Your task to perform on an android device: star an email in the gmail app Image 0: 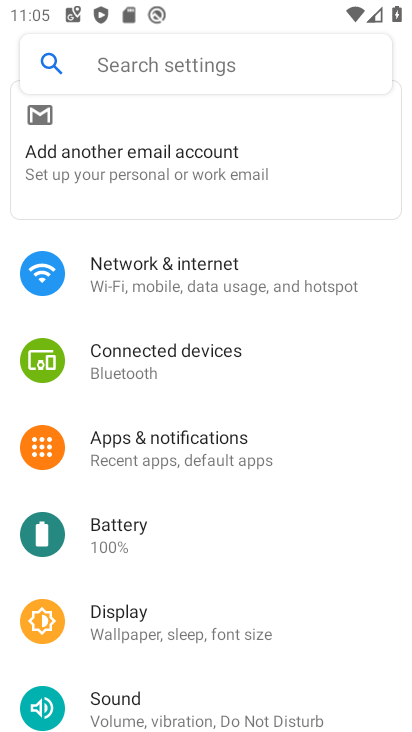
Step 0: press home button
Your task to perform on an android device: star an email in the gmail app Image 1: 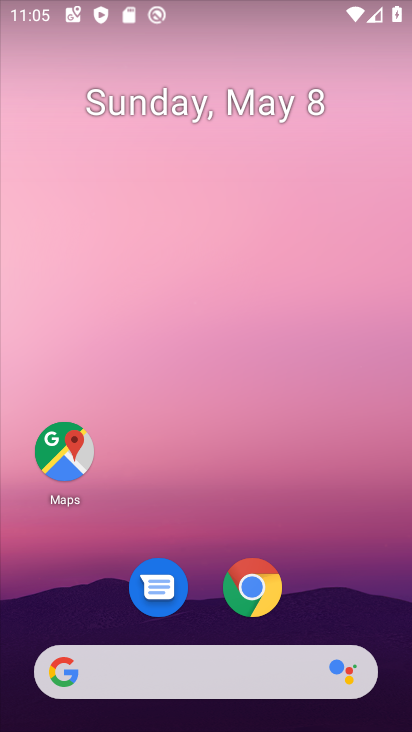
Step 1: drag from (310, 550) to (401, 270)
Your task to perform on an android device: star an email in the gmail app Image 2: 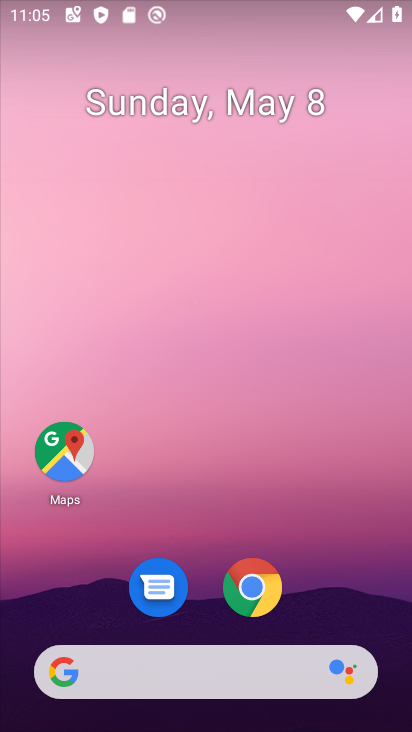
Step 2: click (194, 119)
Your task to perform on an android device: star an email in the gmail app Image 3: 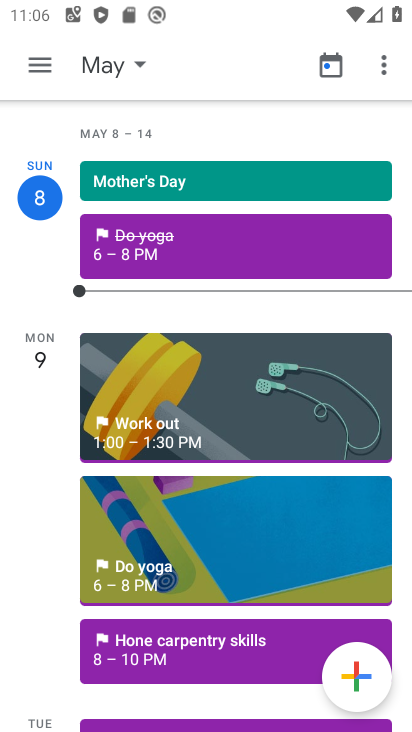
Step 3: press home button
Your task to perform on an android device: star an email in the gmail app Image 4: 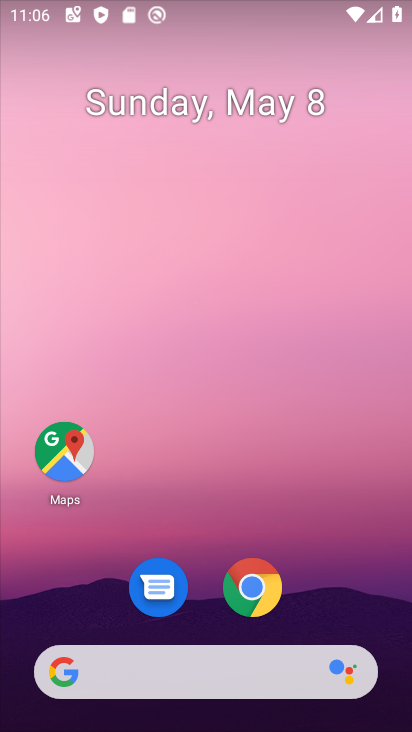
Step 4: drag from (333, 564) to (58, 25)
Your task to perform on an android device: star an email in the gmail app Image 5: 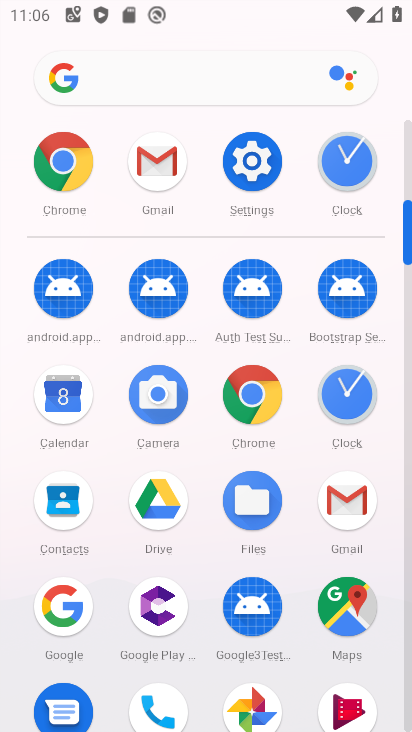
Step 5: click (347, 504)
Your task to perform on an android device: star an email in the gmail app Image 6: 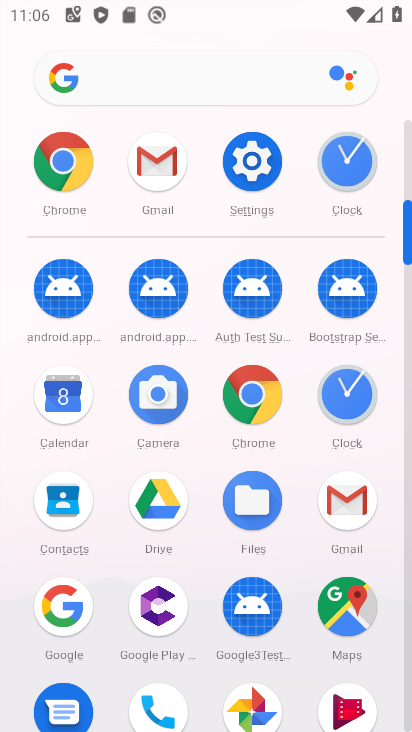
Step 6: click (347, 504)
Your task to perform on an android device: star an email in the gmail app Image 7: 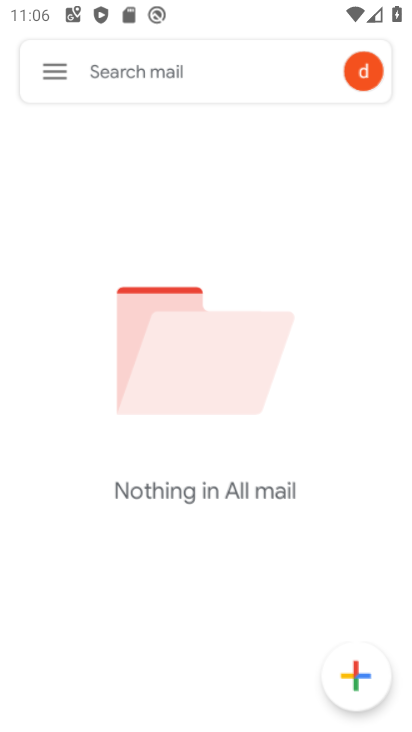
Step 7: click (347, 504)
Your task to perform on an android device: star an email in the gmail app Image 8: 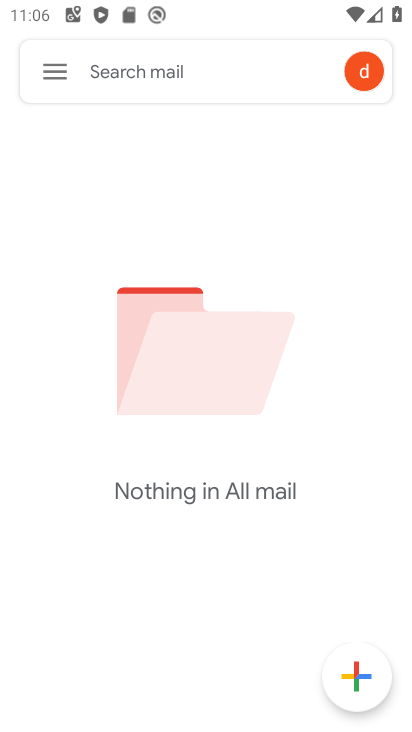
Step 8: click (346, 503)
Your task to perform on an android device: star an email in the gmail app Image 9: 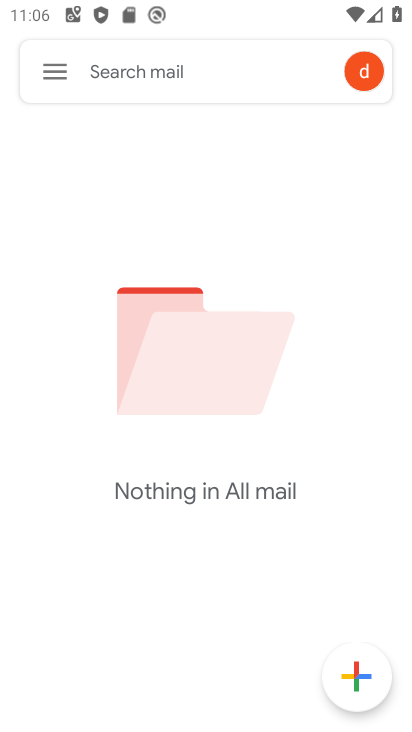
Step 9: task complete